Your task to perform on an android device: Search for Mexican restaurants on Maps Image 0: 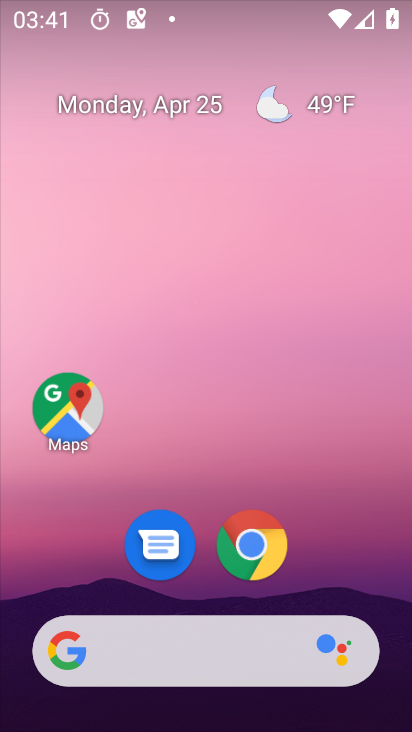
Step 0: click (79, 417)
Your task to perform on an android device: Search for Mexican restaurants on Maps Image 1: 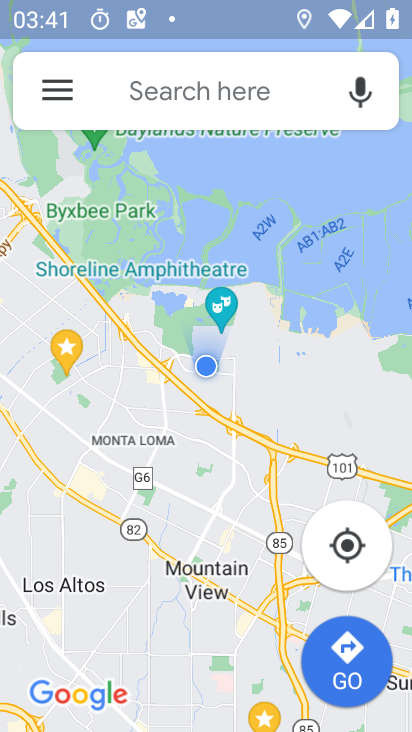
Step 1: click (156, 78)
Your task to perform on an android device: Search for Mexican restaurants on Maps Image 2: 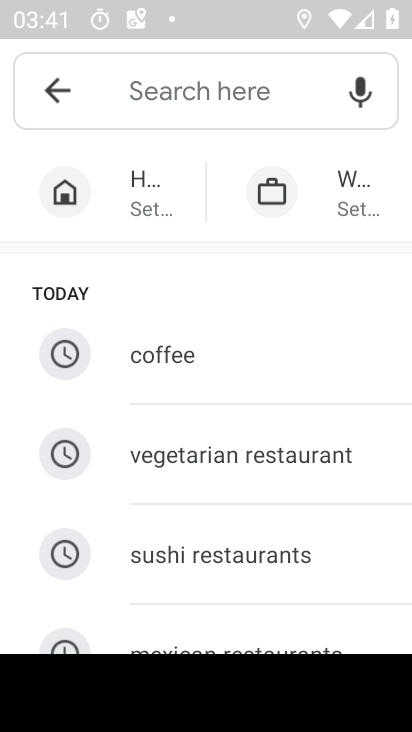
Step 2: type "Mexican restaurants"
Your task to perform on an android device: Search for Mexican restaurants on Maps Image 3: 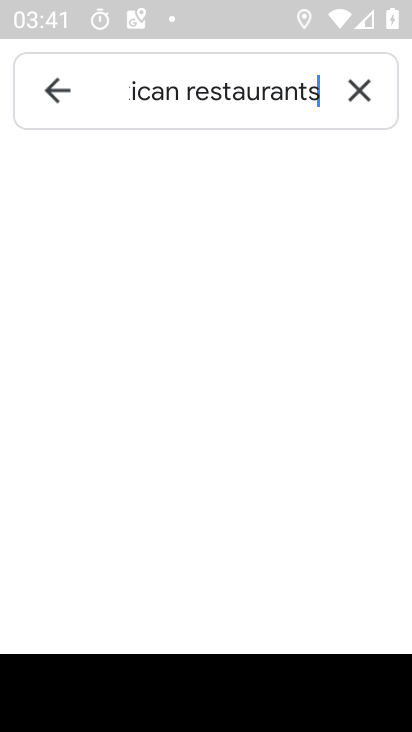
Step 3: type ""
Your task to perform on an android device: Search for Mexican restaurants on Maps Image 4: 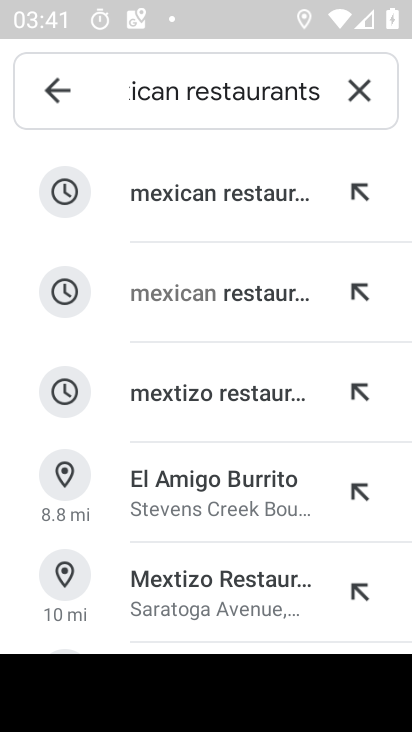
Step 4: click (159, 202)
Your task to perform on an android device: Search for Mexican restaurants on Maps Image 5: 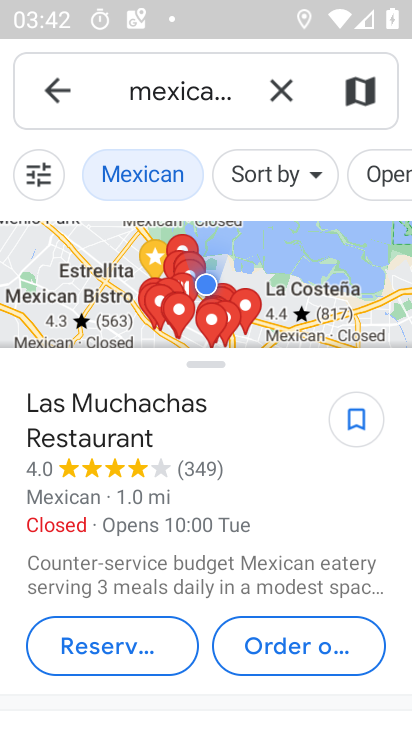
Step 5: task complete